Your task to perform on an android device: What's the weather going to be tomorrow? Image 0: 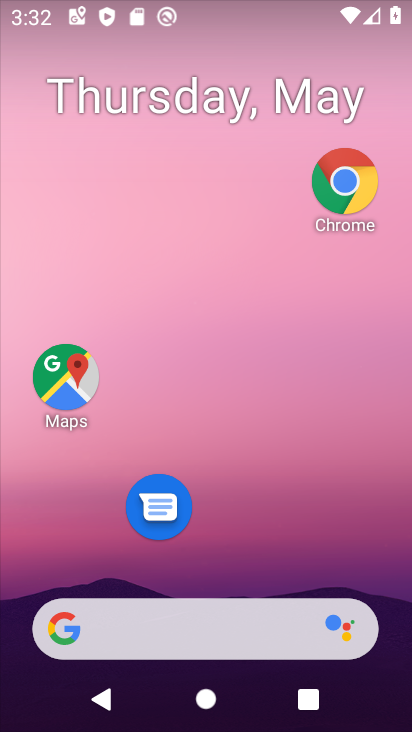
Step 0: drag from (262, 525) to (248, 59)
Your task to perform on an android device: What's the weather going to be tomorrow? Image 1: 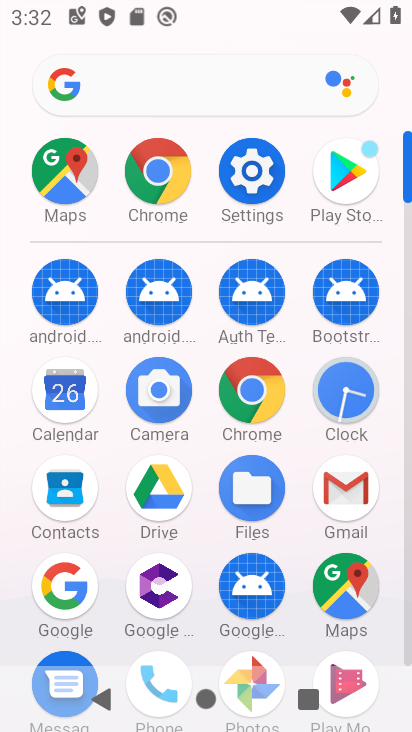
Step 1: click (357, 586)
Your task to perform on an android device: What's the weather going to be tomorrow? Image 2: 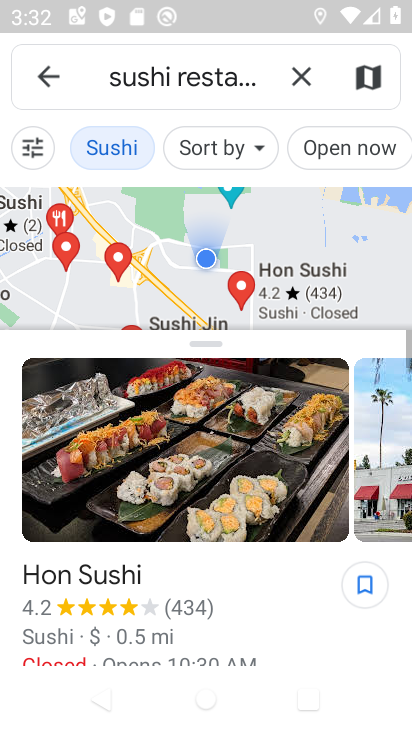
Step 2: press home button
Your task to perform on an android device: What's the weather going to be tomorrow? Image 3: 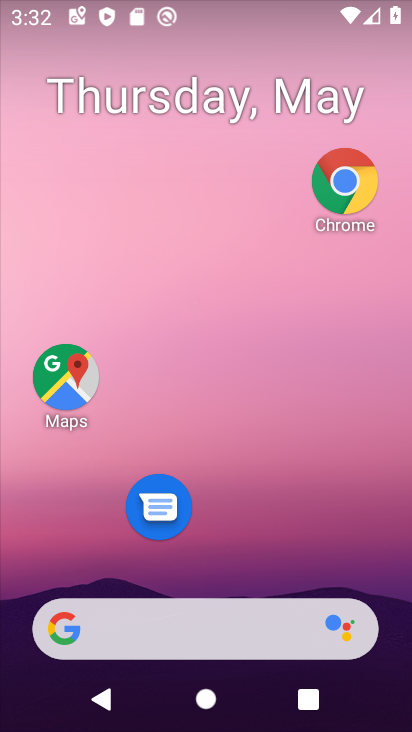
Step 3: click (332, 174)
Your task to perform on an android device: What's the weather going to be tomorrow? Image 4: 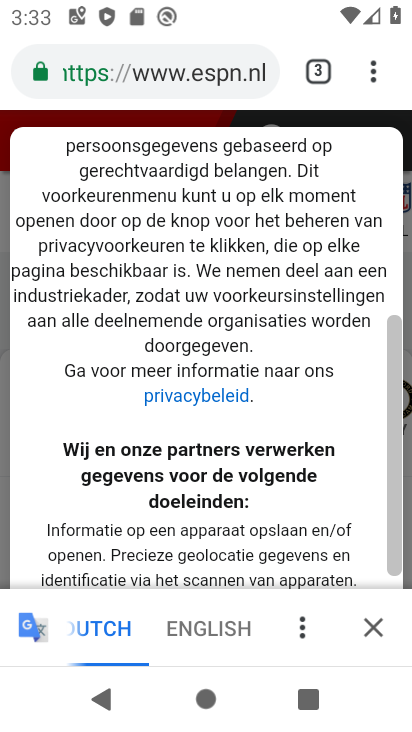
Step 4: drag from (364, 78) to (132, 145)
Your task to perform on an android device: What's the weather going to be tomorrow? Image 5: 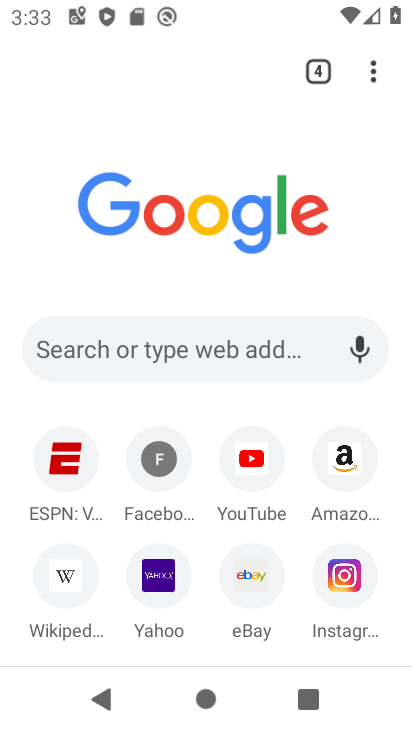
Step 5: click (133, 358)
Your task to perform on an android device: What's the weather going to be tomorrow? Image 6: 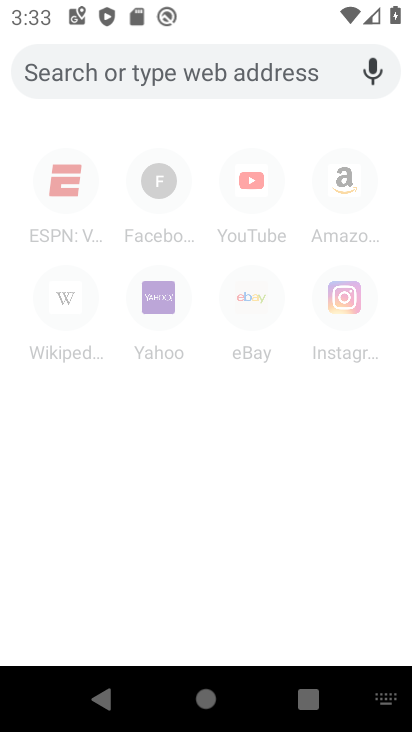
Step 6: type "What's the weather going to be tomorrow?"
Your task to perform on an android device: What's the weather going to be tomorrow? Image 7: 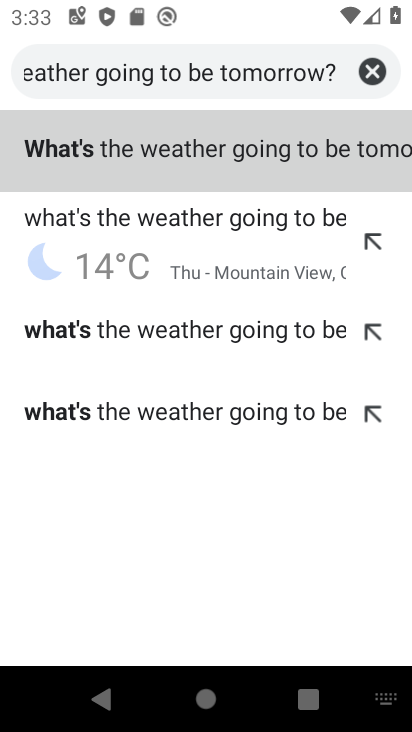
Step 7: click (259, 147)
Your task to perform on an android device: What's the weather going to be tomorrow? Image 8: 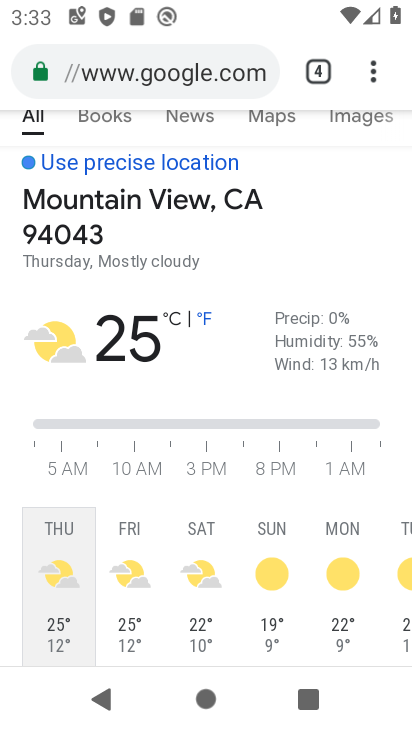
Step 8: task complete